Your task to perform on an android device: Open internet settings Image 0: 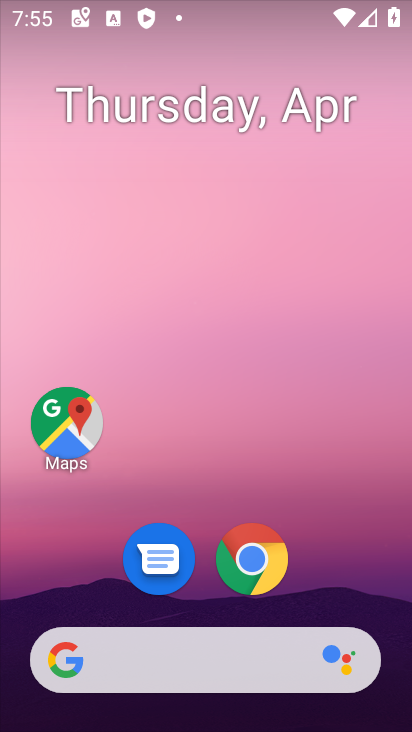
Step 0: drag from (230, 727) to (191, 30)
Your task to perform on an android device: Open internet settings Image 1: 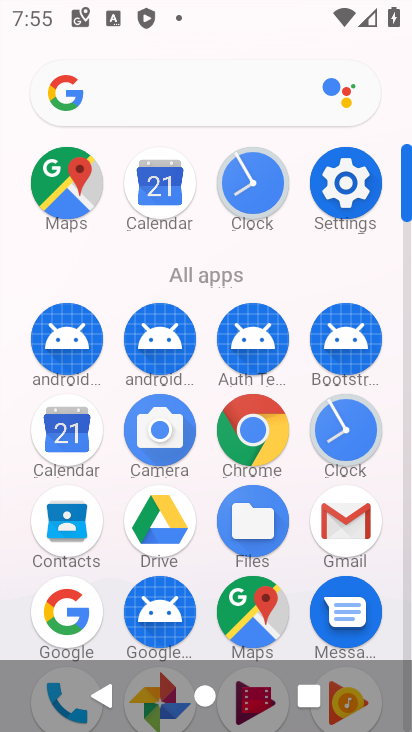
Step 1: click (334, 177)
Your task to perform on an android device: Open internet settings Image 2: 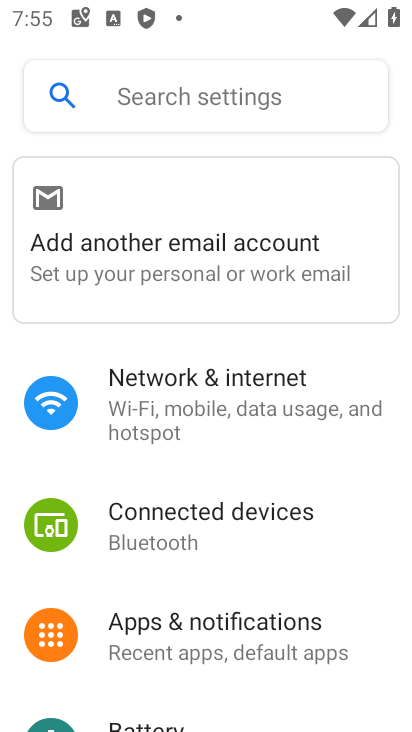
Step 2: click (178, 385)
Your task to perform on an android device: Open internet settings Image 3: 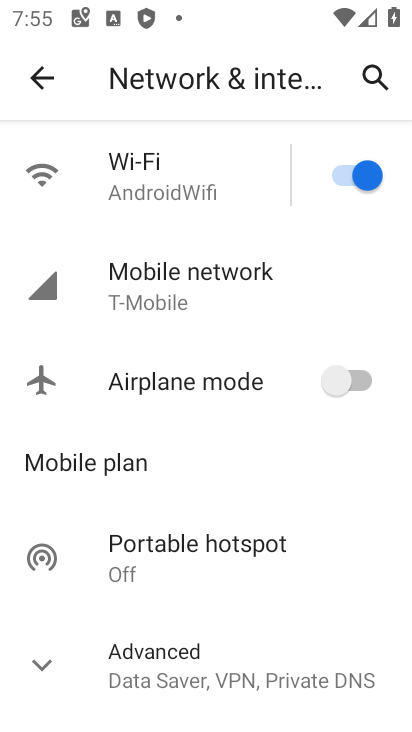
Step 3: task complete